Your task to perform on an android device: set default search engine in the chrome app Image 0: 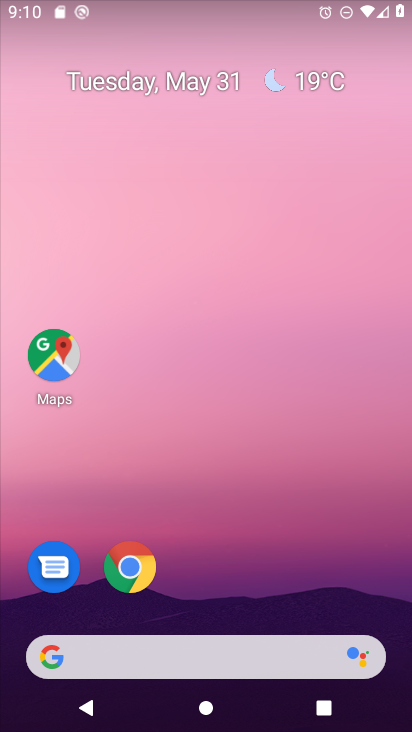
Step 0: drag from (203, 505) to (203, 174)
Your task to perform on an android device: set default search engine in the chrome app Image 1: 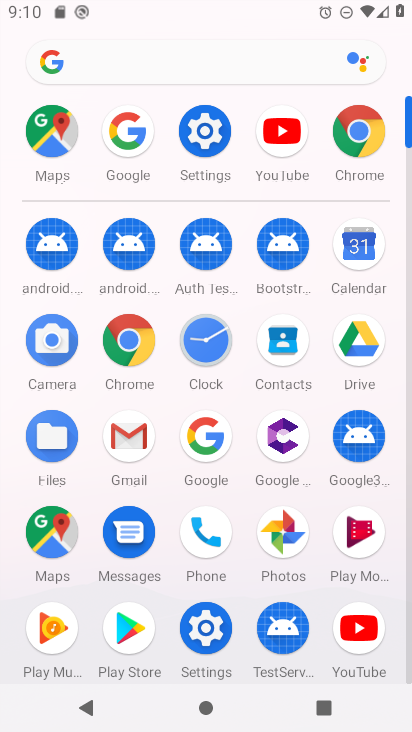
Step 1: click (355, 152)
Your task to perform on an android device: set default search engine in the chrome app Image 2: 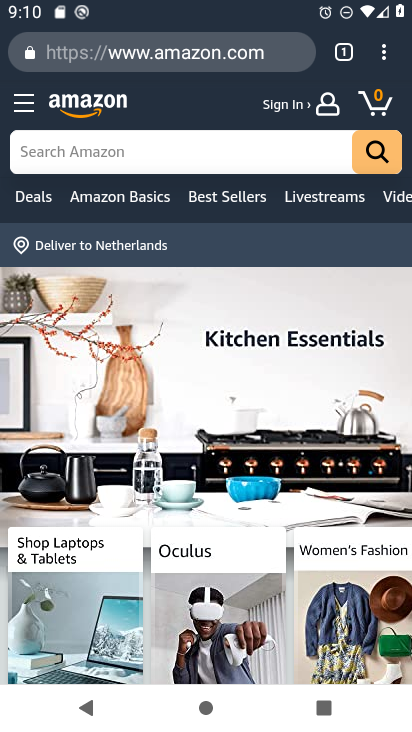
Step 2: click (383, 61)
Your task to perform on an android device: set default search engine in the chrome app Image 3: 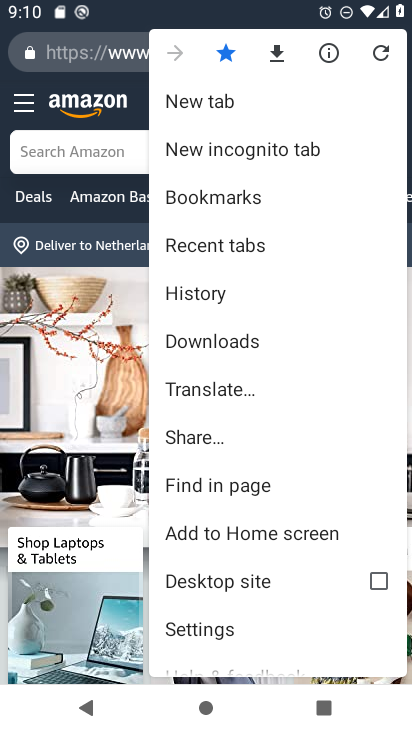
Step 3: click (176, 627)
Your task to perform on an android device: set default search engine in the chrome app Image 4: 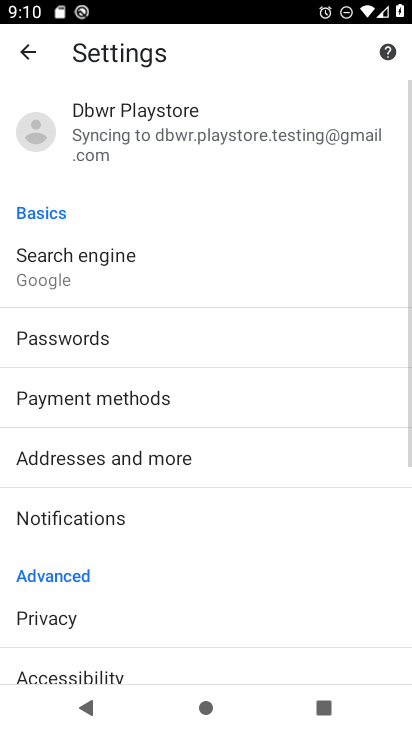
Step 4: task complete